Your task to perform on an android device: check storage Image 0: 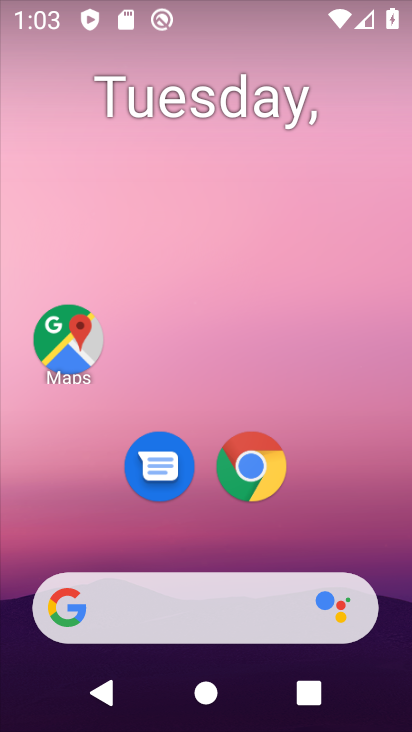
Step 0: task complete